Your task to perform on an android device: toggle javascript in the chrome app Image 0: 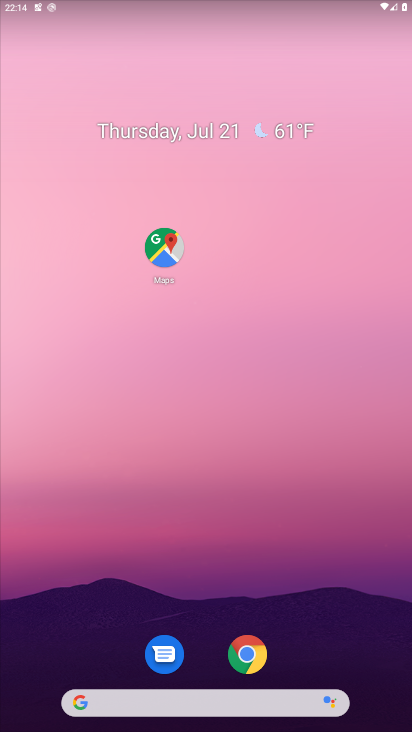
Step 0: click (264, 645)
Your task to perform on an android device: toggle javascript in the chrome app Image 1: 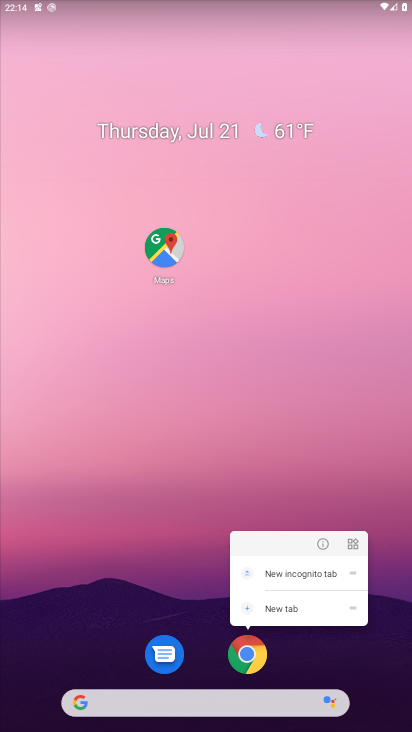
Step 1: click (241, 665)
Your task to perform on an android device: toggle javascript in the chrome app Image 2: 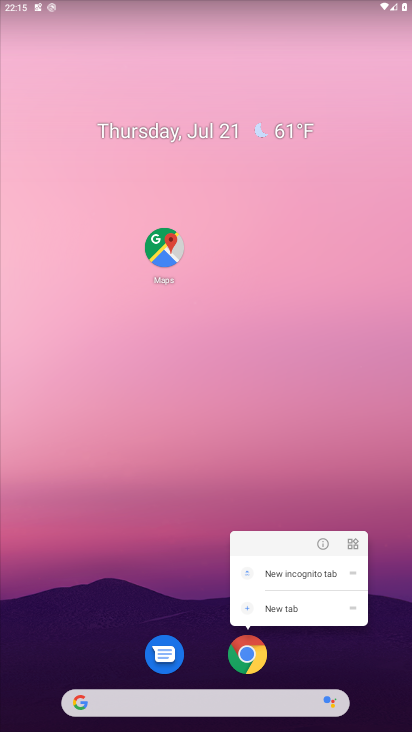
Step 2: click (248, 669)
Your task to perform on an android device: toggle javascript in the chrome app Image 3: 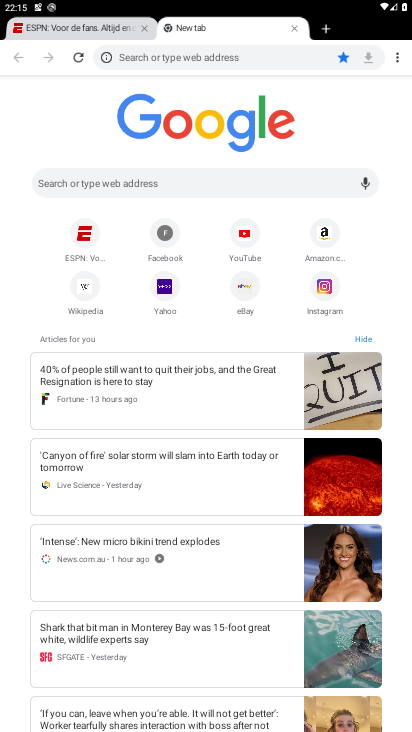
Step 3: click (394, 58)
Your task to perform on an android device: toggle javascript in the chrome app Image 4: 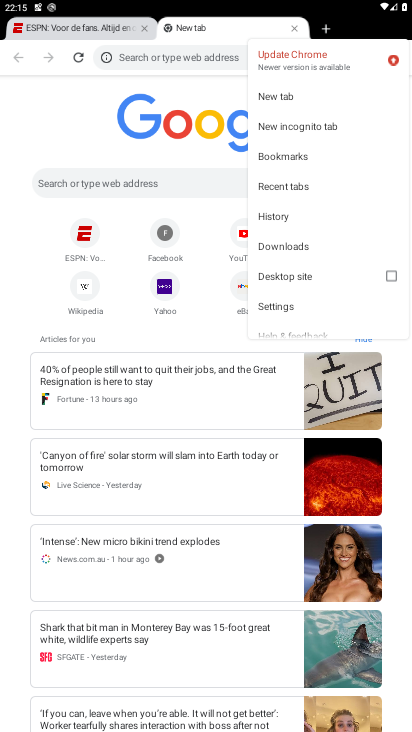
Step 4: click (271, 302)
Your task to perform on an android device: toggle javascript in the chrome app Image 5: 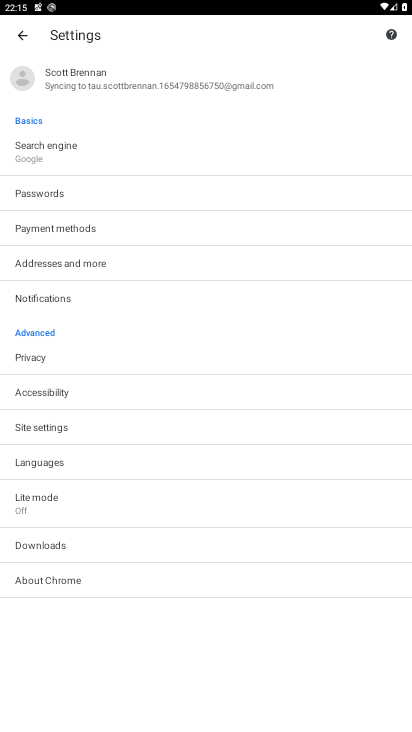
Step 5: click (41, 431)
Your task to perform on an android device: toggle javascript in the chrome app Image 6: 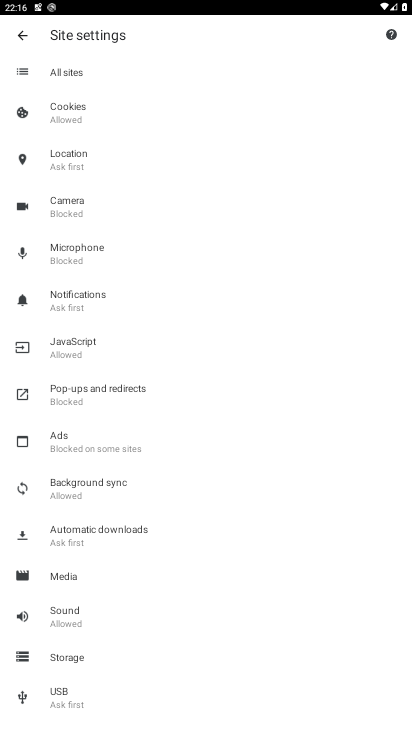
Step 6: click (54, 349)
Your task to perform on an android device: toggle javascript in the chrome app Image 7: 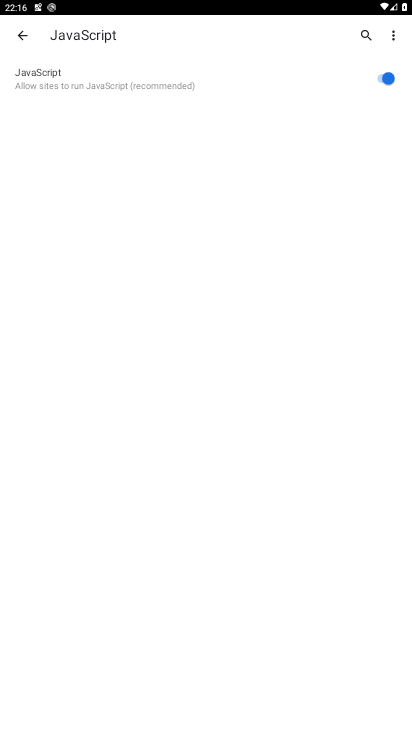
Step 7: task complete